Your task to perform on an android device: all mails in gmail Image 0: 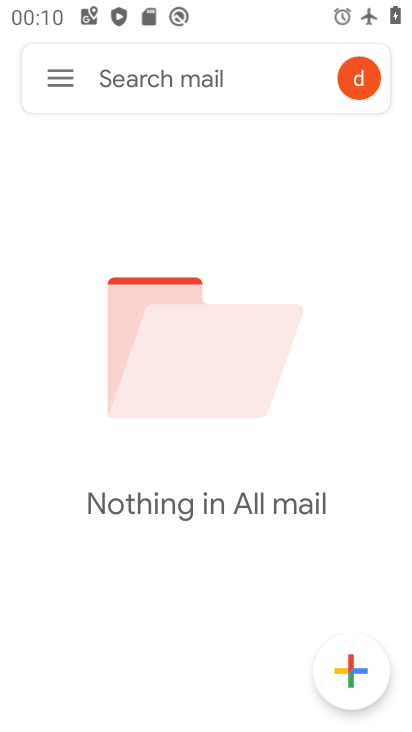
Step 0: press home button
Your task to perform on an android device: all mails in gmail Image 1: 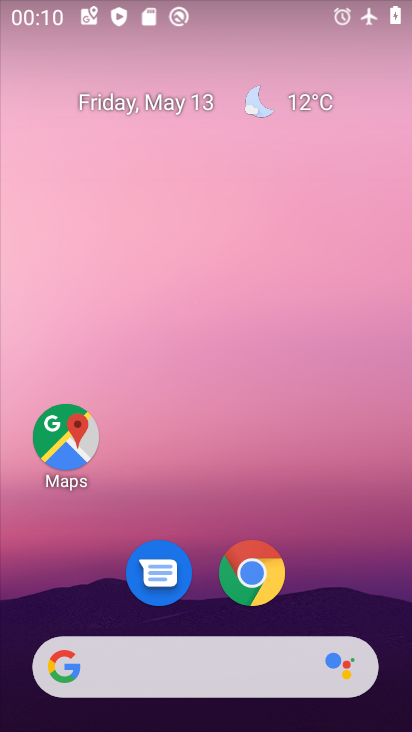
Step 1: drag from (222, 673) to (286, 1)
Your task to perform on an android device: all mails in gmail Image 2: 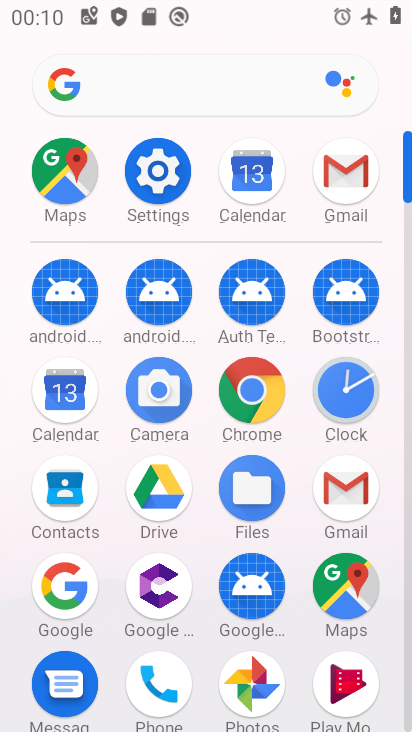
Step 2: click (349, 159)
Your task to perform on an android device: all mails in gmail Image 3: 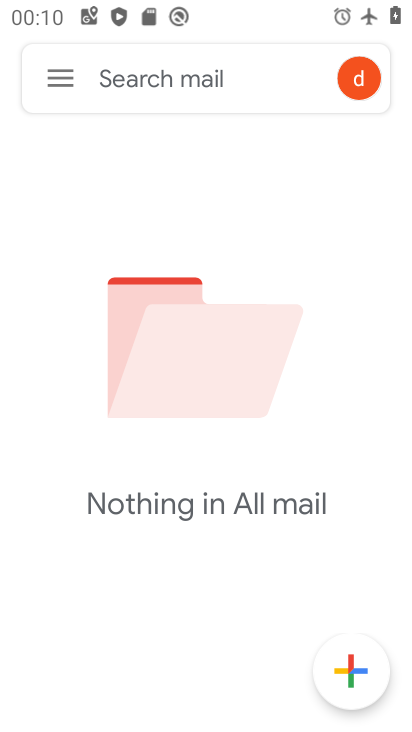
Step 3: task complete